Your task to perform on an android device: turn off data saver in the chrome app Image 0: 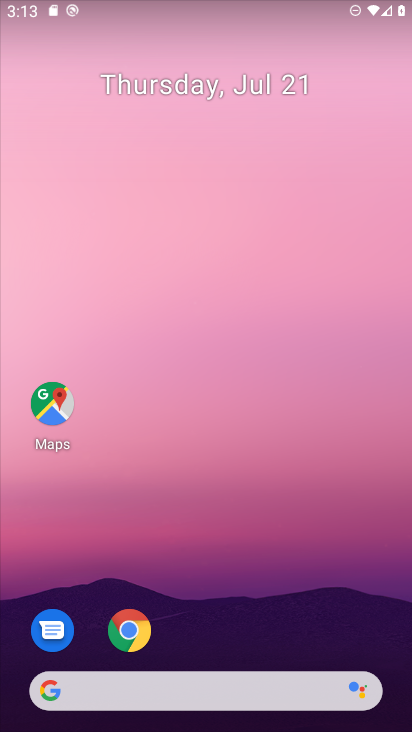
Step 0: click (122, 622)
Your task to perform on an android device: turn off data saver in the chrome app Image 1: 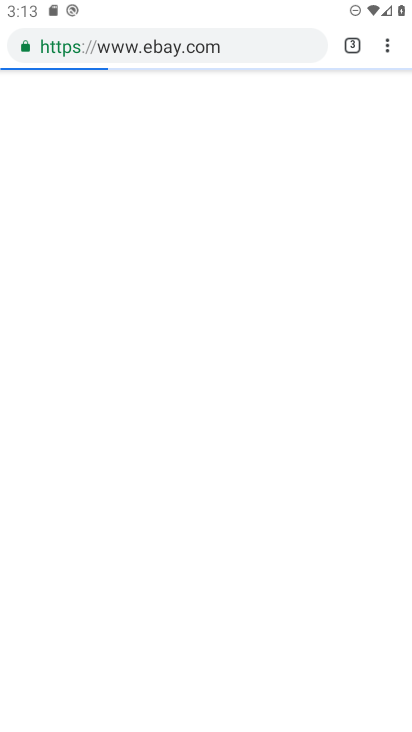
Step 1: drag from (391, 42) to (238, 518)
Your task to perform on an android device: turn off data saver in the chrome app Image 2: 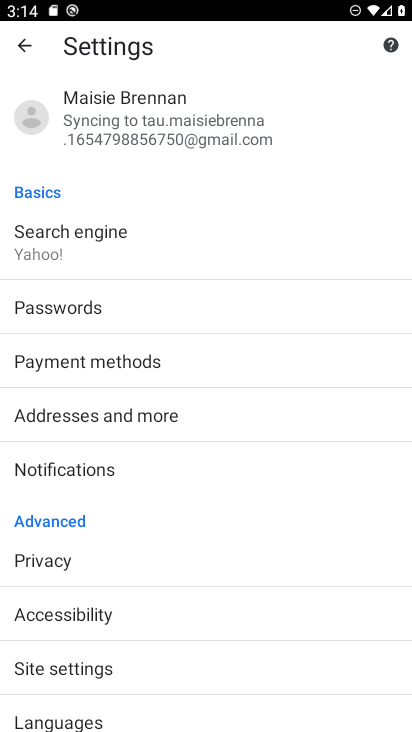
Step 2: drag from (147, 632) to (153, 179)
Your task to perform on an android device: turn off data saver in the chrome app Image 3: 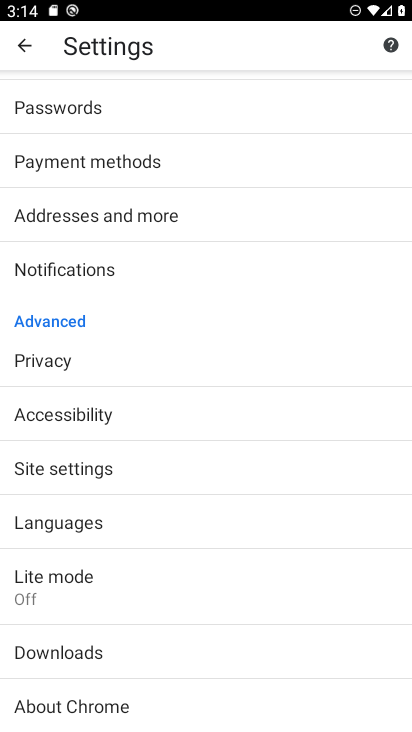
Step 3: click (75, 581)
Your task to perform on an android device: turn off data saver in the chrome app Image 4: 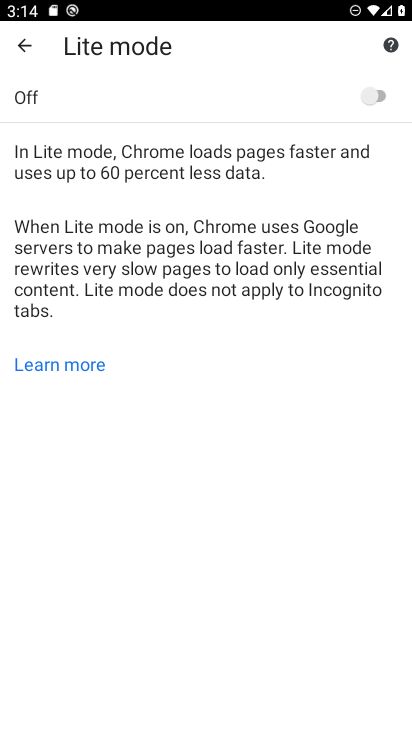
Step 4: task complete